Your task to perform on an android device: Open CNN.com Image 0: 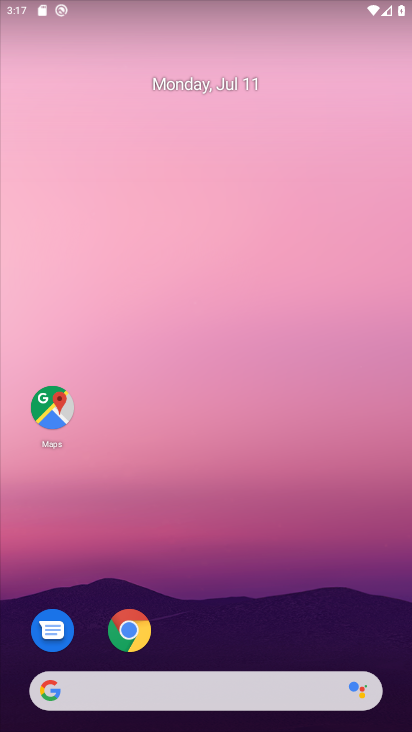
Step 0: drag from (320, 637) to (268, 0)
Your task to perform on an android device: Open CNN.com Image 1: 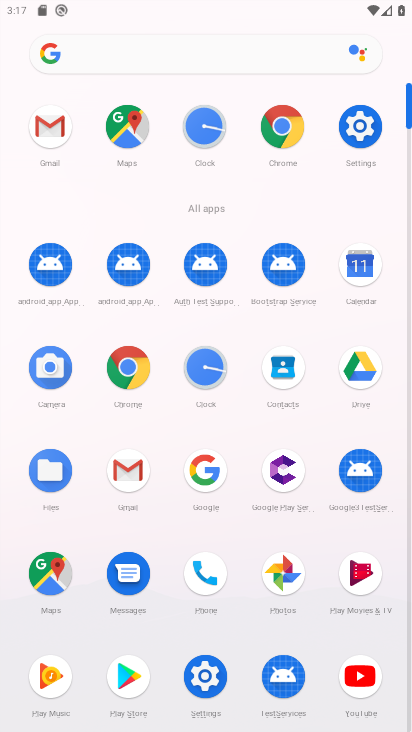
Step 1: click (275, 161)
Your task to perform on an android device: Open CNN.com Image 2: 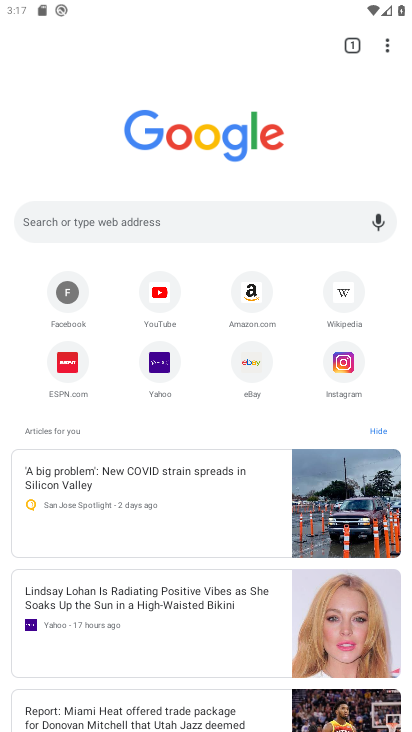
Step 2: click (203, 218)
Your task to perform on an android device: Open CNN.com Image 3: 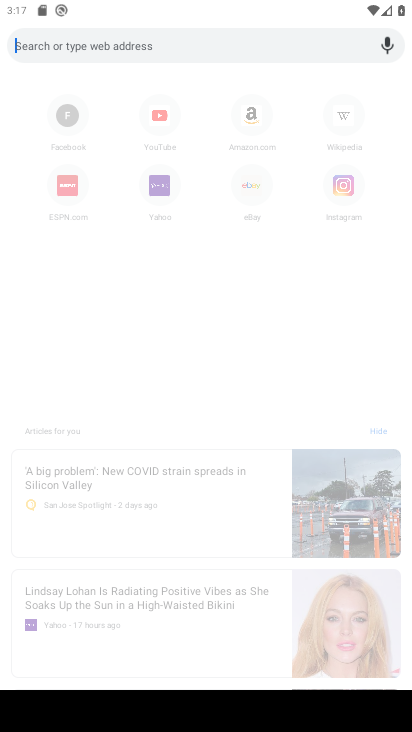
Step 3: type "cnn.com"
Your task to perform on an android device: Open CNN.com Image 4: 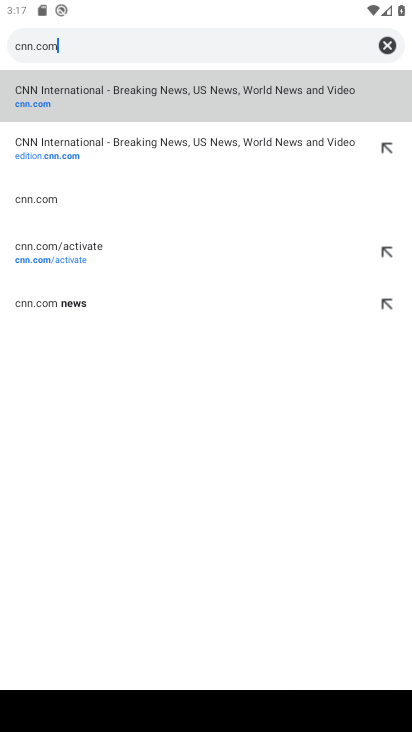
Step 4: click (213, 156)
Your task to perform on an android device: Open CNN.com Image 5: 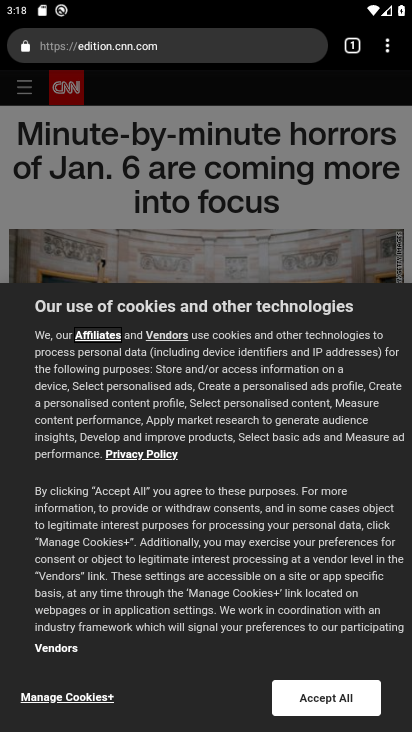
Step 5: task complete